Your task to perform on an android device: Go to Wikipedia Image 0: 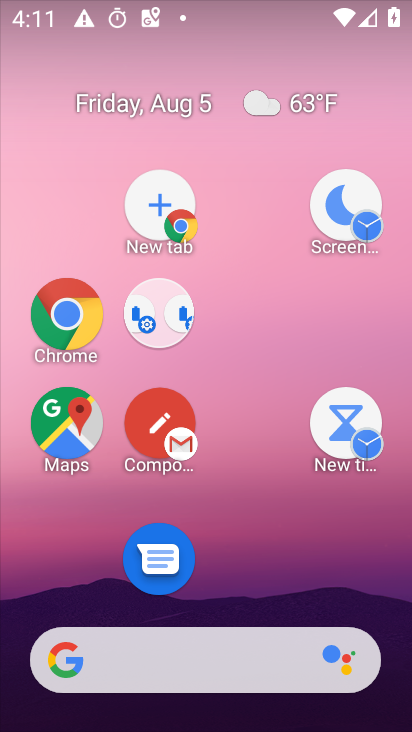
Step 0: drag from (261, 660) to (208, 255)
Your task to perform on an android device: Go to Wikipedia Image 1: 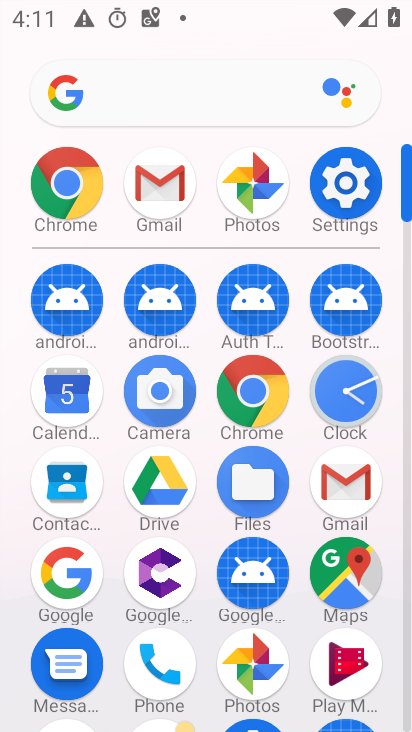
Step 1: click (79, 190)
Your task to perform on an android device: Go to Wikipedia Image 2: 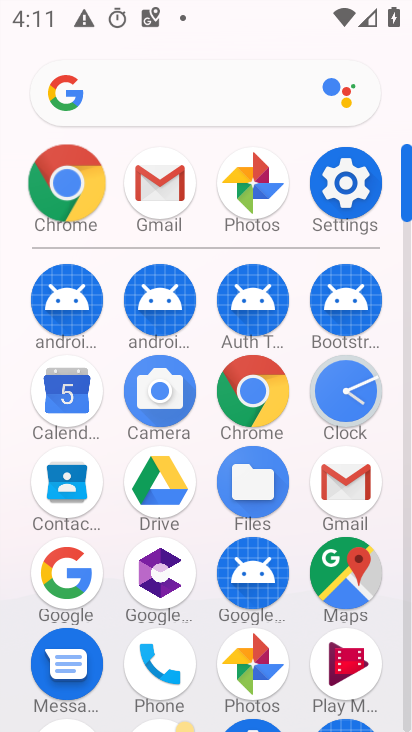
Step 2: click (78, 190)
Your task to perform on an android device: Go to Wikipedia Image 3: 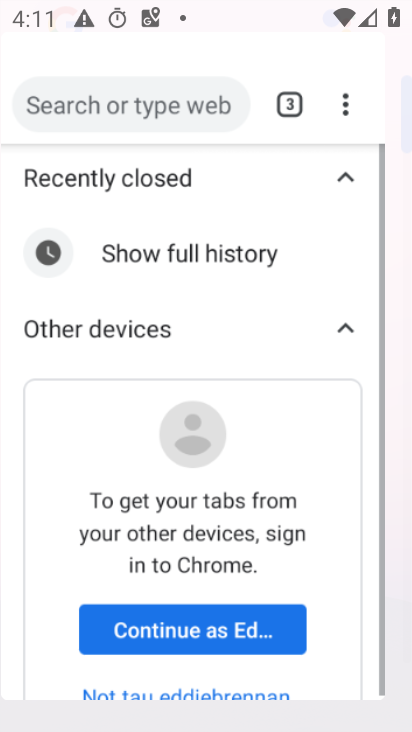
Step 3: click (72, 192)
Your task to perform on an android device: Go to Wikipedia Image 4: 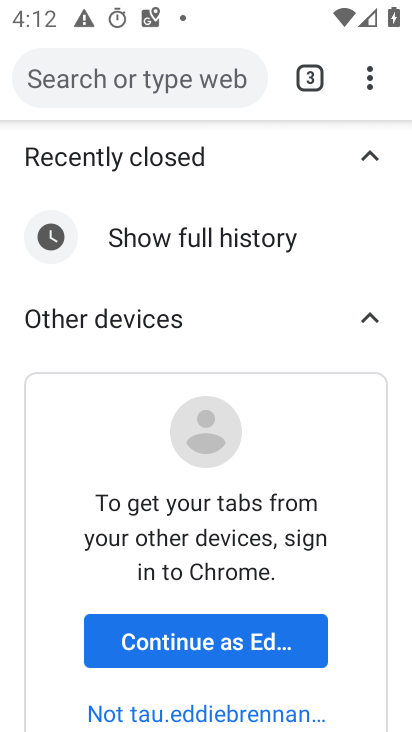
Step 4: drag from (363, 72) to (97, 154)
Your task to perform on an android device: Go to Wikipedia Image 5: 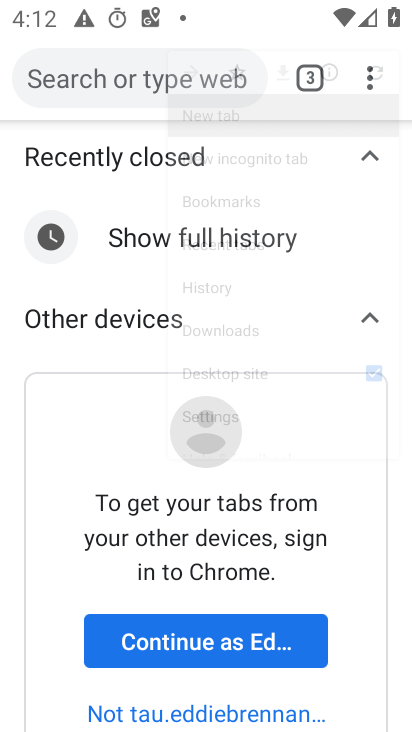
Step 5: click (97, 152)
Your task to perform on an android device: Go to Wikipedia Image 6: 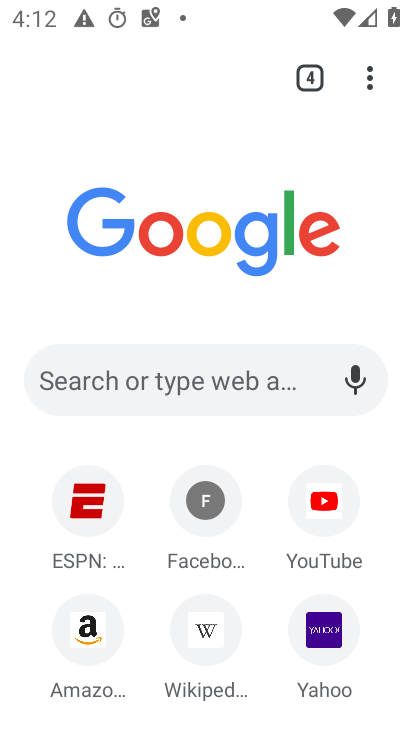
Step 6: click (200, 655)
Your task to perform on an android device: Go to Wikipedia Image 7: 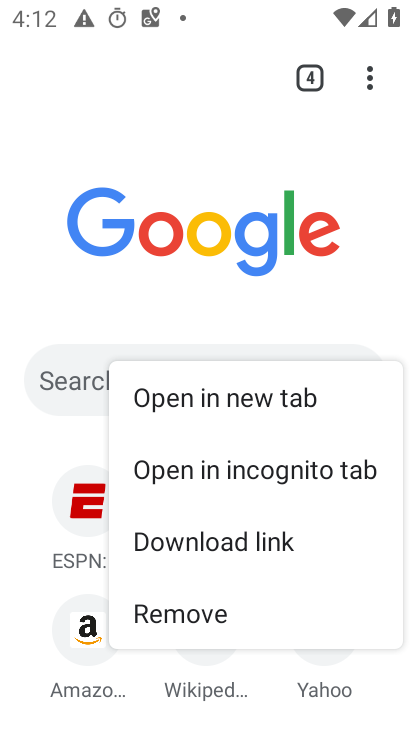
Step 7: click (201, 627)
Your task to perform on an android device: Go to Wikipedia Image 8: 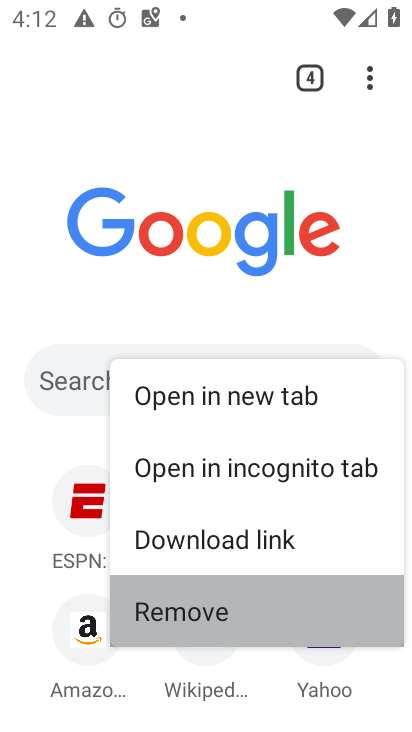
Step 8: click (201, 627)
Your task to perform on an android device: Go to Wikipedia Image 9: 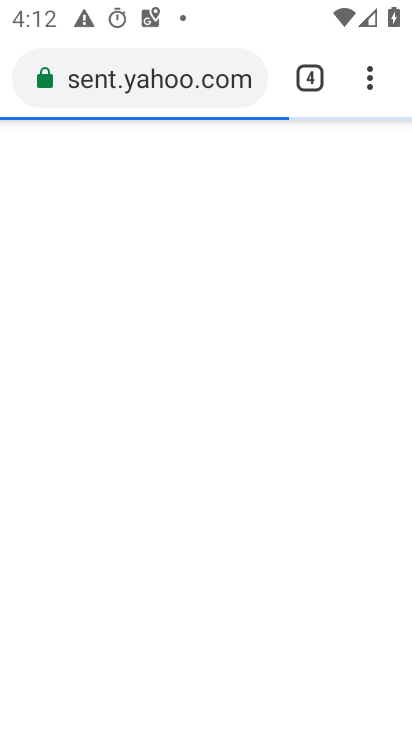
Step 9: click (327, 687)
Your task to perform on an android device: Go to Wikipedia Image 10: 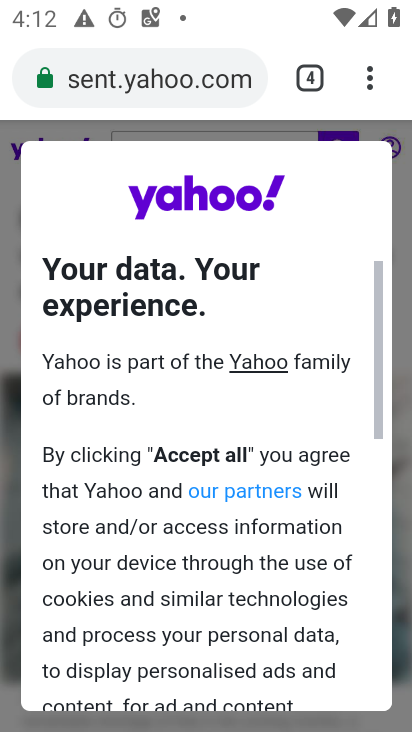
Step 10: task complete